Your task to perform on an android device: Open Youtube and go to "Your channel" Image 0: 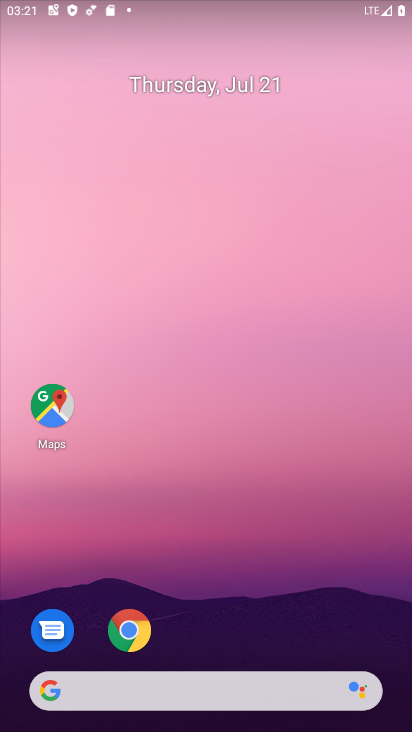
Step 0: drag from (218, 637) to (321, 95)
Your task to perform on an android device: Open Youtube and go to "Your channel" Image 1: 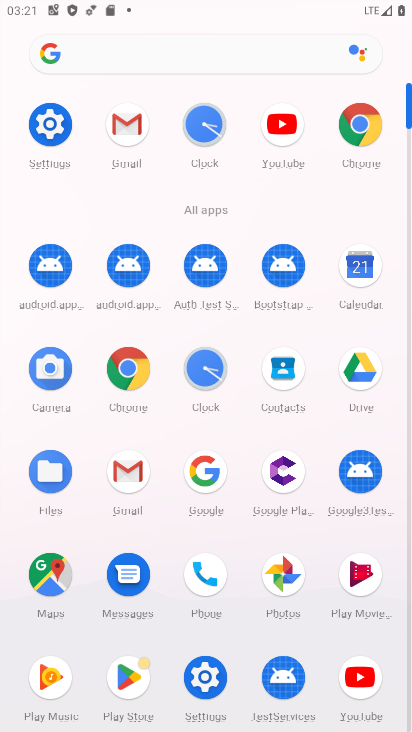
Step 1: click (352, 666)
Your task to perform on an android device: Open Youtube and go to "Your channel" Image 2: 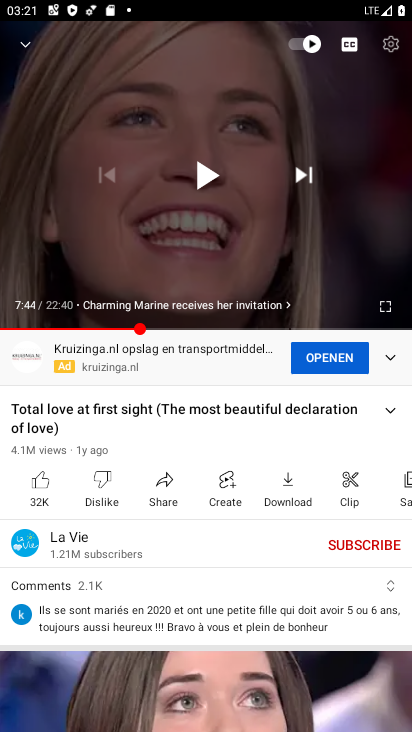
Step 2: click (31, 52)
Your task to perform on an android device: Open Youtube and go to "Your channel" Image 3: 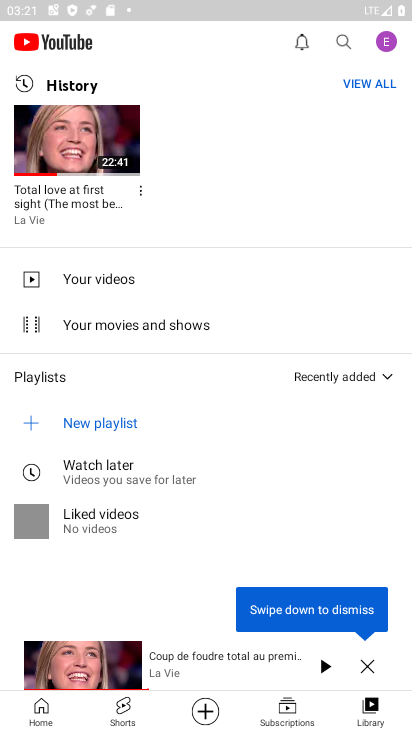
Step 3: click (340, 49)
Your task to perform on an android device: Open Youtube and go to "Your channel" Image 4: 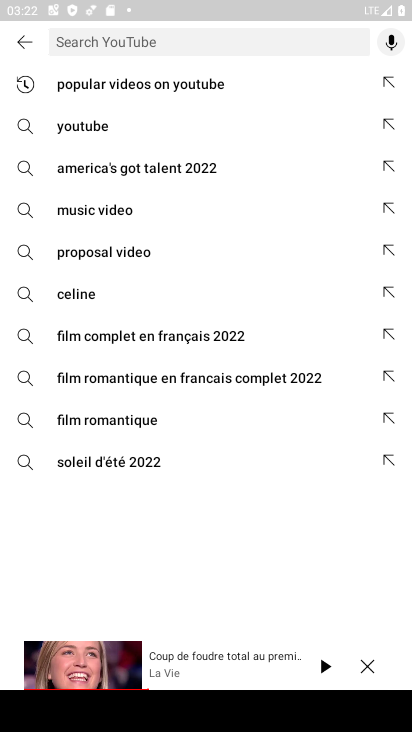
Step 4: type "your channel"
Your task to perform on an android device: Open Youtube and go to "Your channel" Image 5: 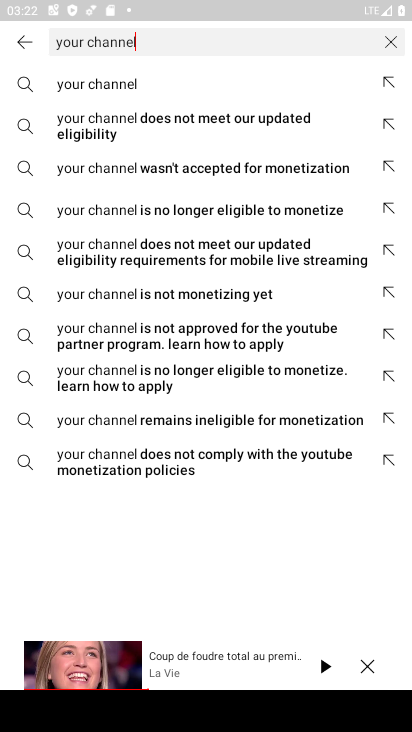
Step 5: click (76, 83)
Your task to perform on an android device: Open Youtube and go to "Your channel" Image 6: 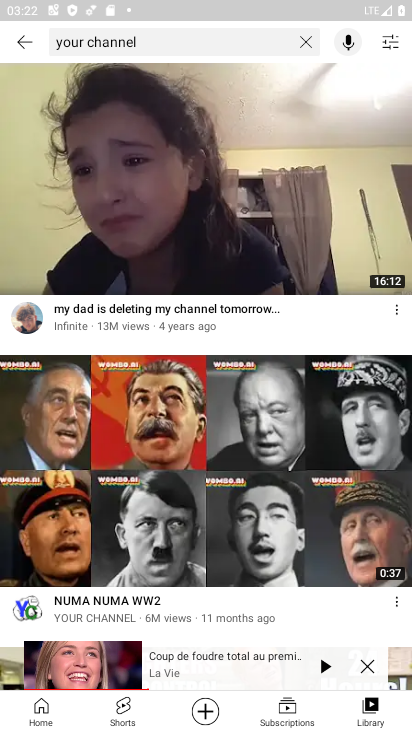
Step 6: task complete